Your task to perform on an android device: search for starred emails in the gmail app Image 0: 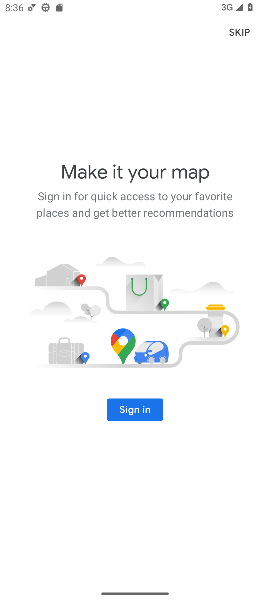
Step 0: press home button
Your task to perform on an android device: search for starred emails in the gmail app Image 1: 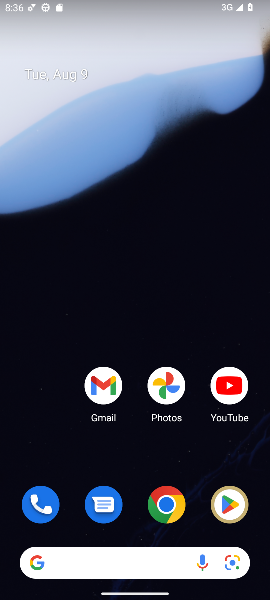
Step 1: click (103, 382)
Your task to perform on an android device: search for starred emails in the gmail app Image 2: 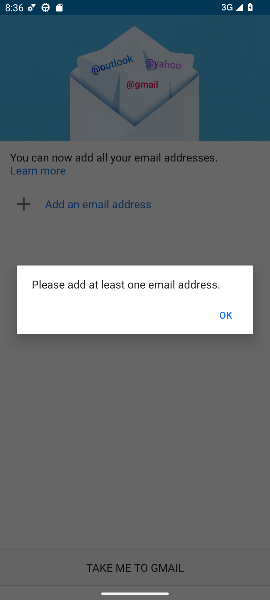
Step 2: click (230, 316)
Your task to perform on an android device: search for starred emails in the gmail app Image 3: 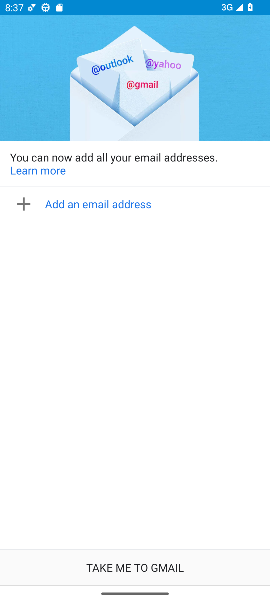
Step 3: task complete